Your task to perform on an android device: turn on improve location accuracy Image 0: 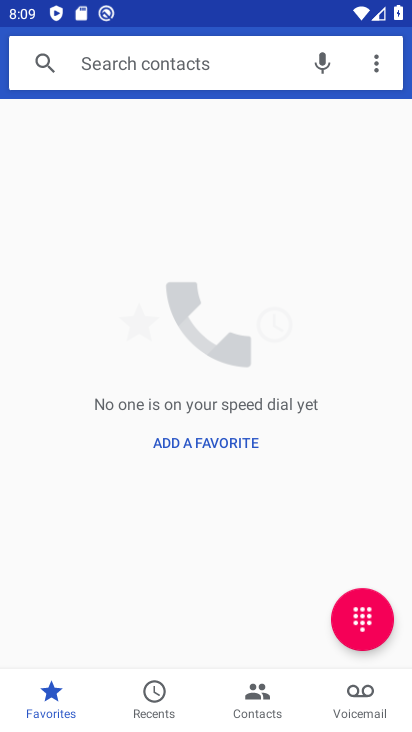
Step 0: press back button
Your task to perform on an android device: turn on improve location accuracy Image 1: 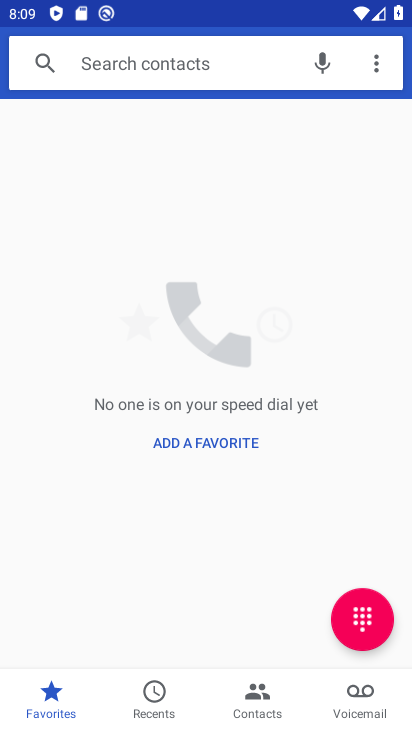
Step 1: press home button
Your task to perform on an android device: turn on improve location accuracy Image 2: 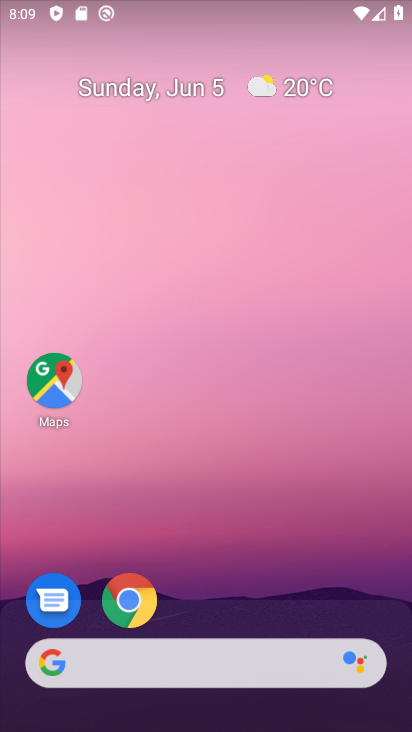
Step 2: drag from (189, 671) to (329, 154)
Your task to perform on an android device: turn on improve location accuracy Image 3: 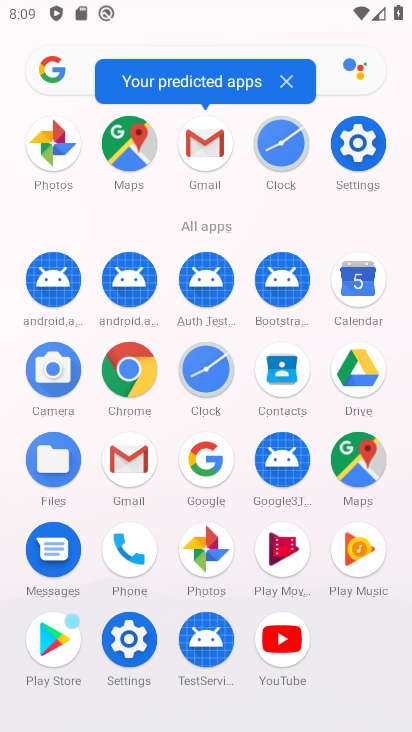
Step 3: click (122, 649)
Your task to perform on an android device: turn on improve location accuracy Image 4: 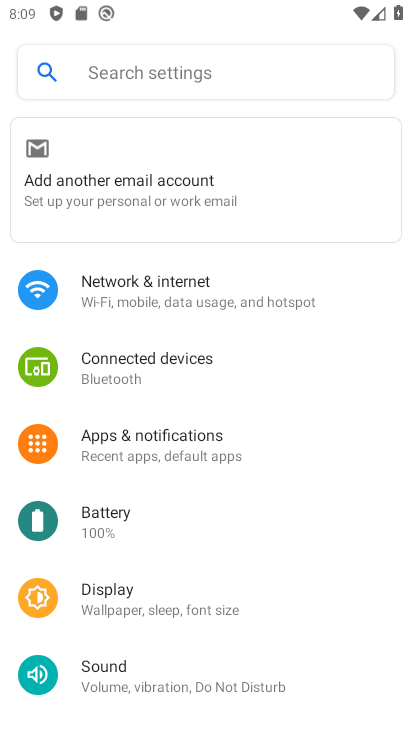
Step 4: drag from (191, 676) to (393, 196)
Your task to perform on an android device: turn on improve location accuracy Image 5: 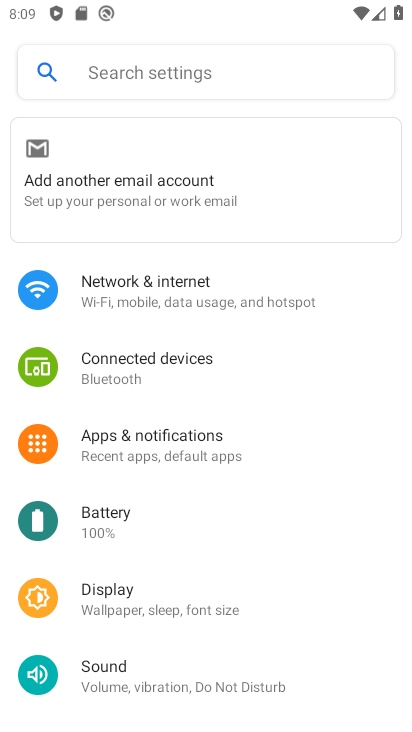
Step 5: drag from (30, 682) to (239, 288)
Your task to perform on an android device: turn on improve location accuracy Image 6: 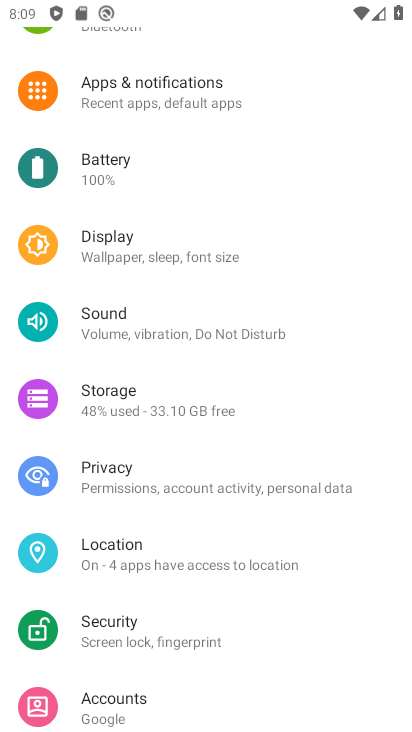
Step 6: click (167, 555)
Your task to perform on an android device: turn on improve location accuracy Image 7: 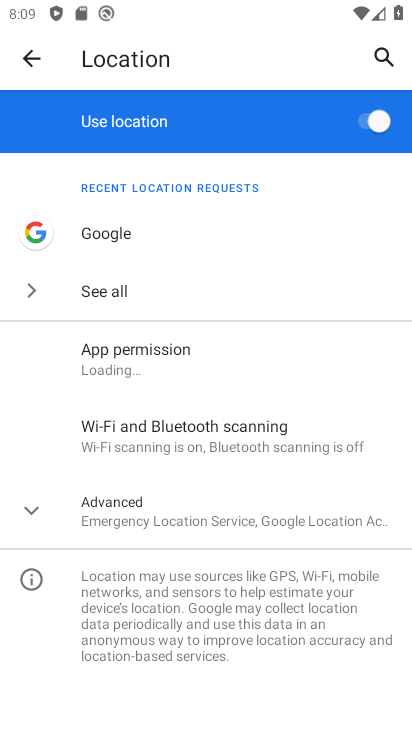
Step 7: click (193, 514)
Your task to perform on an android device: turn on improve location accuracy Image 8: 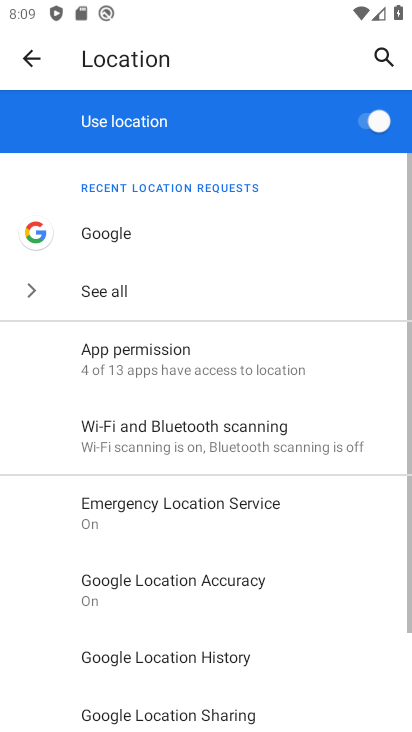
Step 8: drag from (215, 663) to (291, 443)
Your task to perform on an android device: turn on improve location accuracy Image 9: 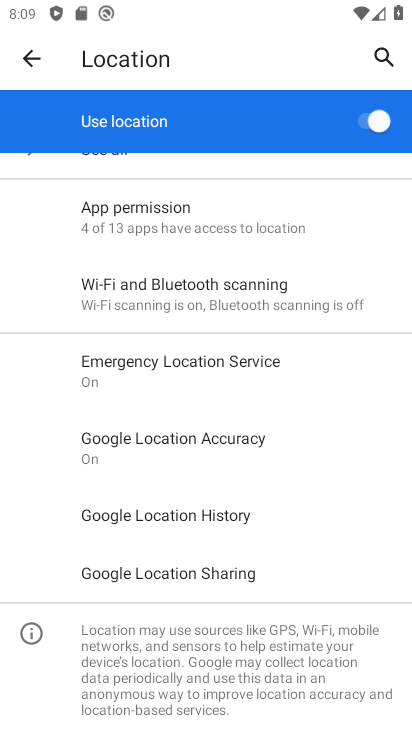
Step 9: click (248, 447)
Your task to perform on an android device: turn on improve location accuracy Image 10: 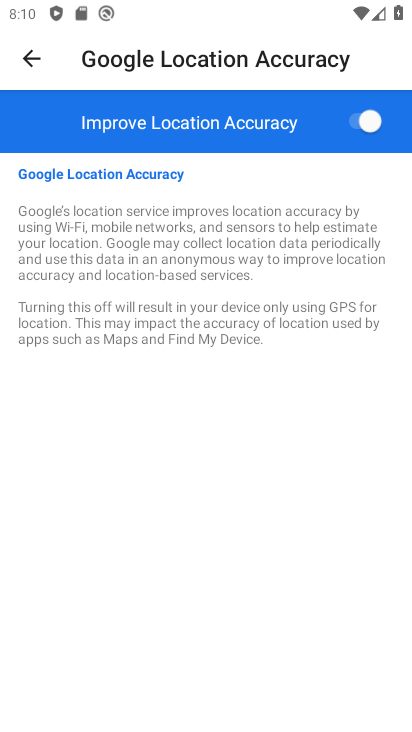
Step 10: task complete